Your task to perform on an android device: Go to Google Image 0: 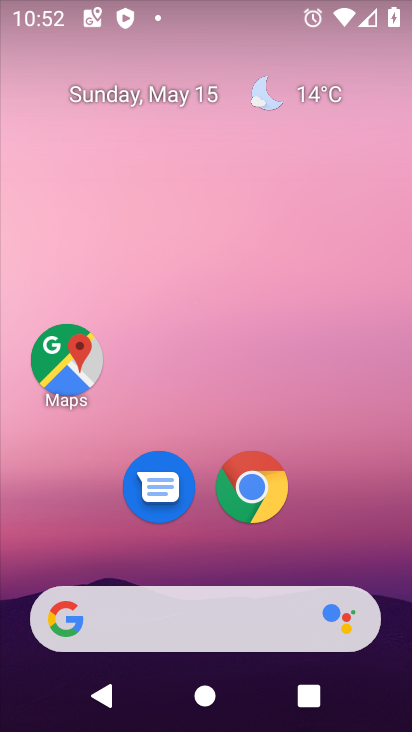
Step 0: click (255, 490)
Your task to perform on an android device: Go to Google Image 1: 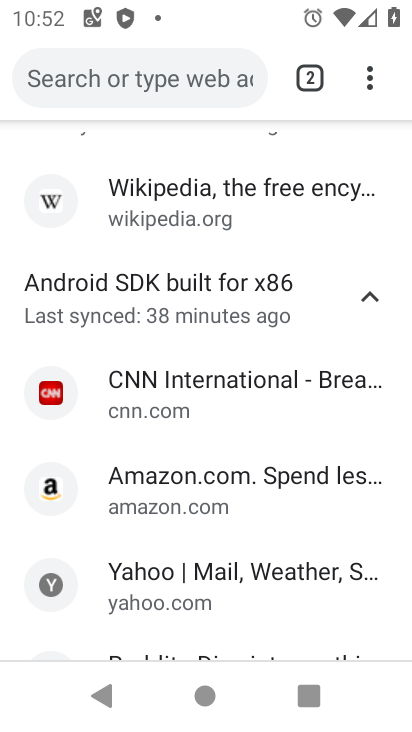
Step 1: task complete